Your task to perform on an android device: snooze an email in the gmail app Image 0: 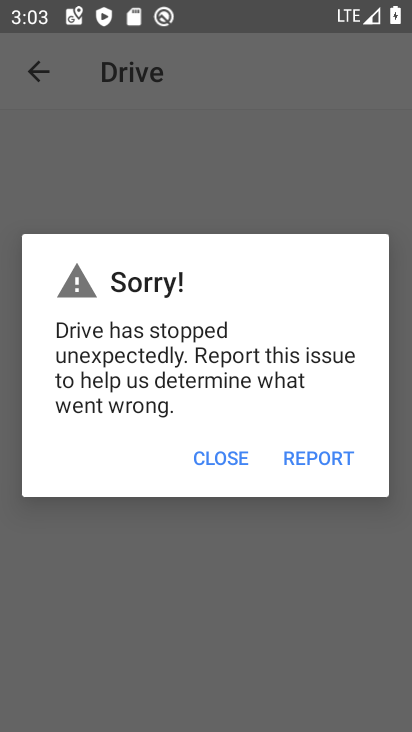
Step 0: drag from (367, 579) to (401, 348)
Your task to perform on an android device: snooze an email in the gmail app Image 1: 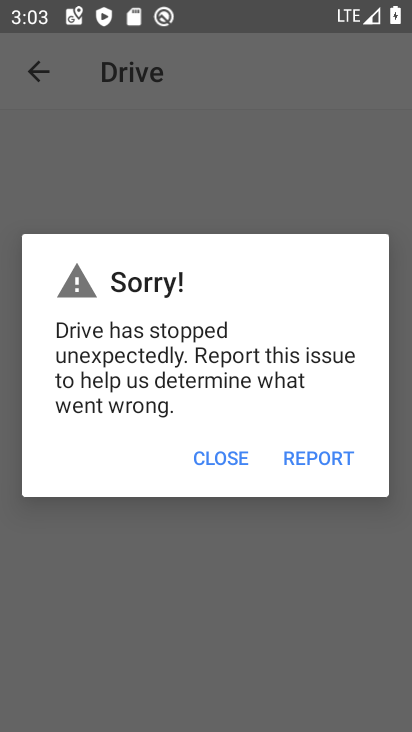
Step 1: press home button
Your task to perform on an android device: snooze an email in the gmail app Image 2: 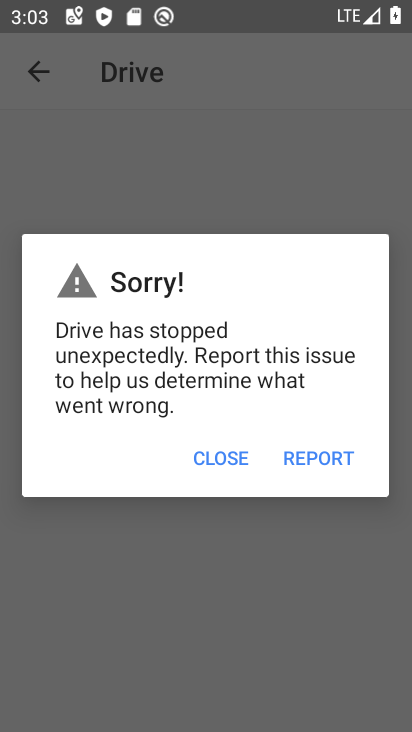
Step 2: drag from (401, 348) to (411, 526)
Your task to perform on an android device: snooze an email in the gmail app Image 3: 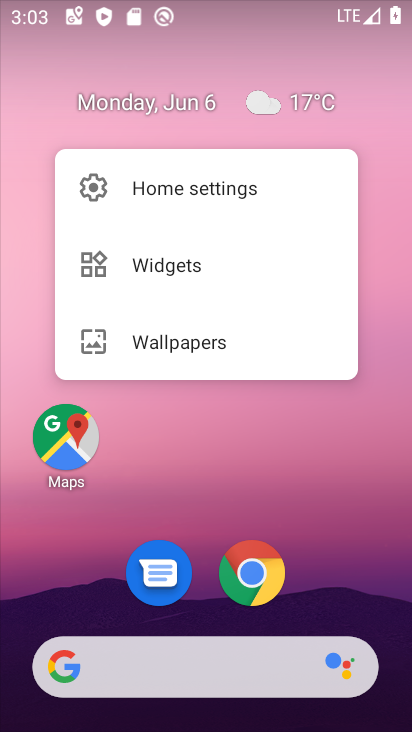
Step 3: drag from (367, 588) to (400, 150)
Your task to perform on an android device: snooze an email in the gmail app Image 4: 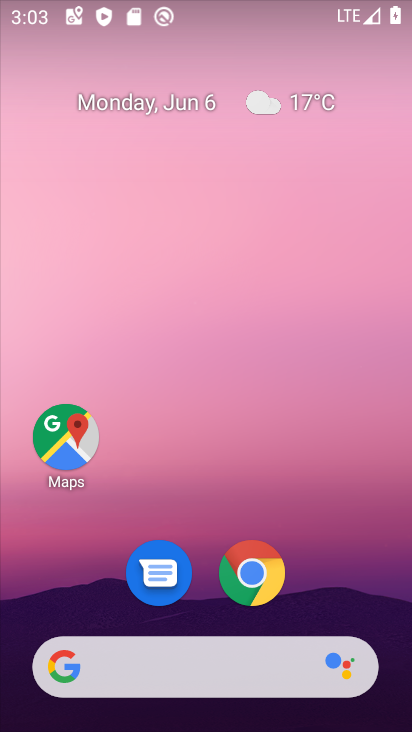
Step 4: drag from (349, 559) to (340, 72)
Your task to perform on an android device: snooze an email in the gmail app Image 5: 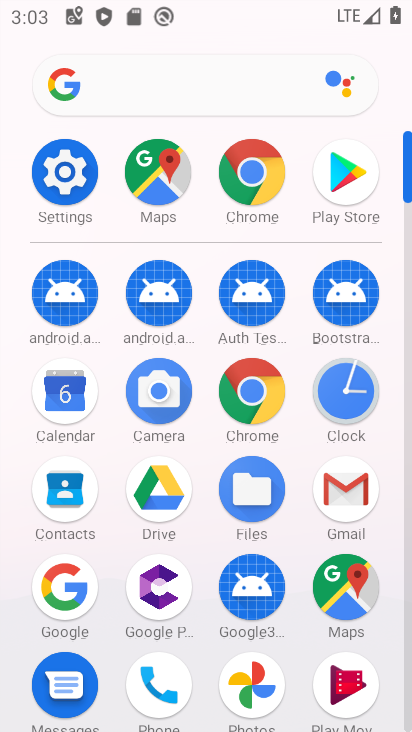
Step 5: click (357, 499)
Your task to perform on an android device: snooze an email in the gmail app Image 6: 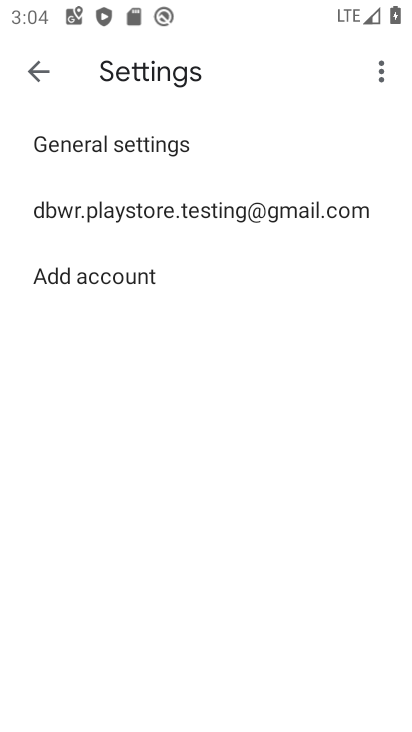
Step 6: press back button
Your task to perform on an android device: snooze an email in the gmail app Image 7: 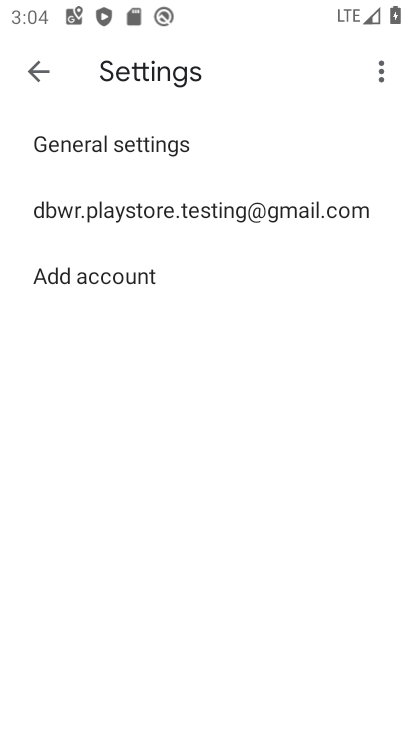
Step 7: press back button
Your task to perform on an android device: snooze an email in the gmail app Image 8: 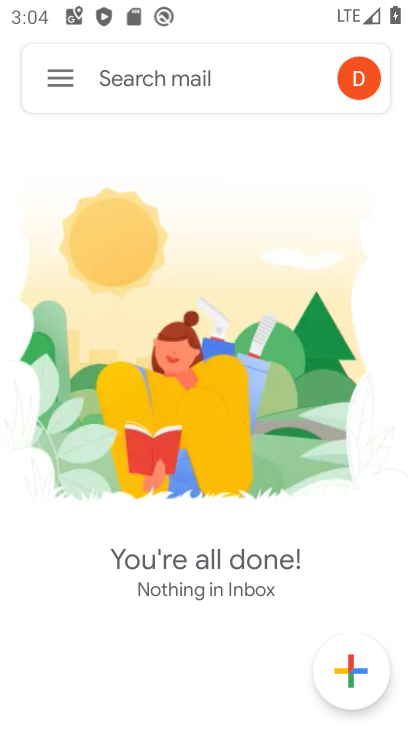
Step 8: click (70, 75)
Your task to perform on an android device: snooze an email in the gmail app Image 9: 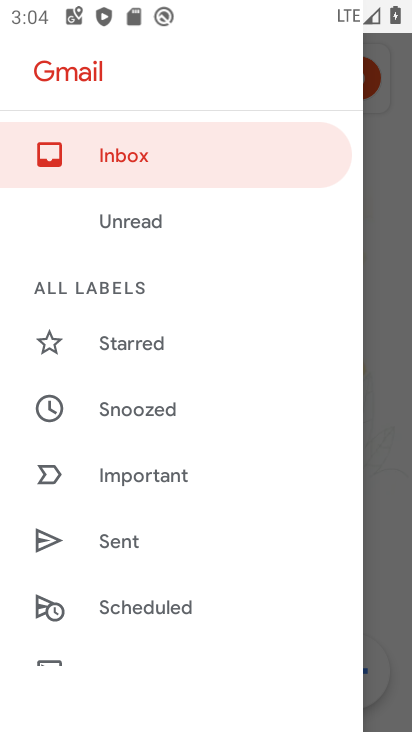
Step 9: drag from (251, 401) to (264, 334)
Your task to perform on an android device: snooze an email in the gmail app Image 10: 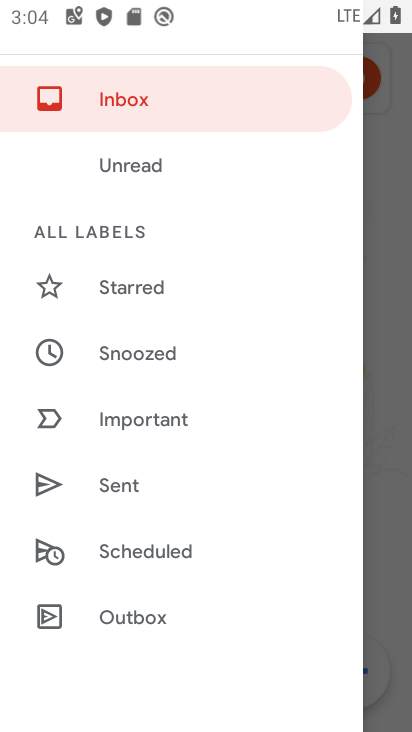
Step 10: drag from (280, 438) to (287, 286)
Your task to perform on an android device: snooze an email in the gmail app Image 11: 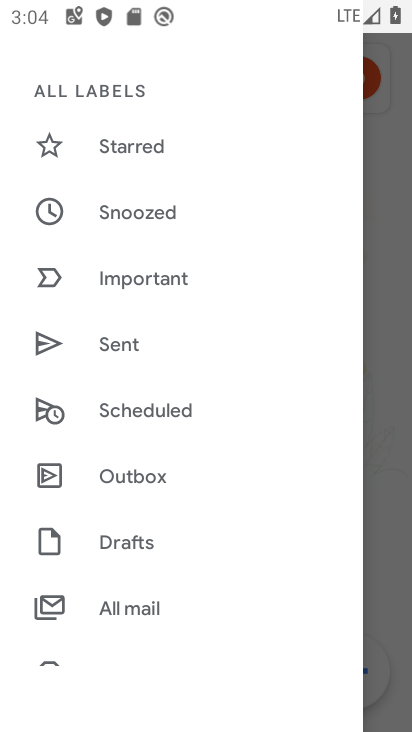
Step 11: drag from (286, 415) to (290, 319)
Your task to perform on an android device: snooze an email in the gmail app Image 12: 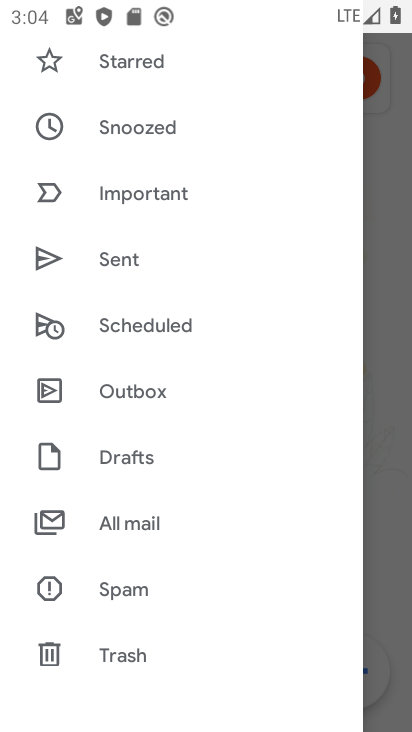
Step 12: click (205, 134)
Your task to perform on an android device: snooze an email in the gmail app Image 13: 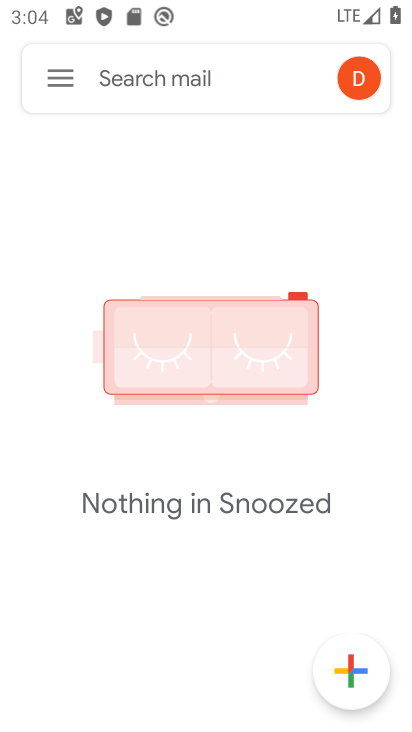
Step 13: task complete